Your task to perform on an android device: What's on the menu at Chipotle? Image 0: 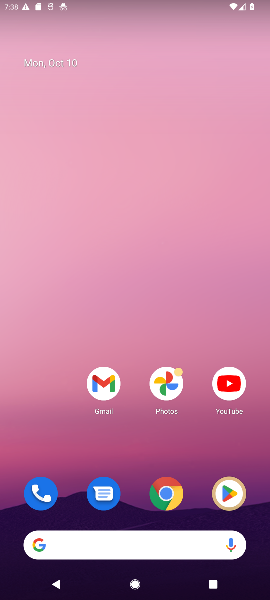
Step 0: drag from (139, 500) to (103, 129)
Your task to perform on an android device: What's on the menu at Chipotle? Image 1: 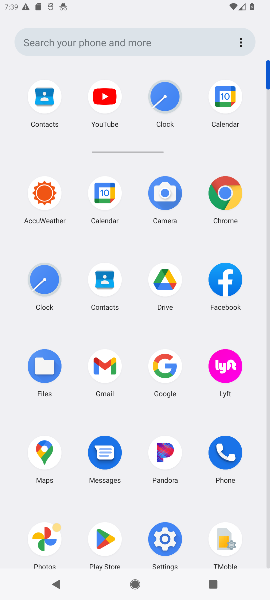
Step 1: click (163, 377)
Your task to perform on an android device: What's on the menu at Chipotle? Image 2: 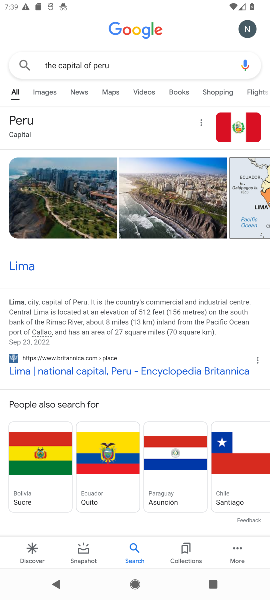
Step 2: click (127, 65)
Your task to perform on an android device: What's on the menu at Chipotle? Image 3: 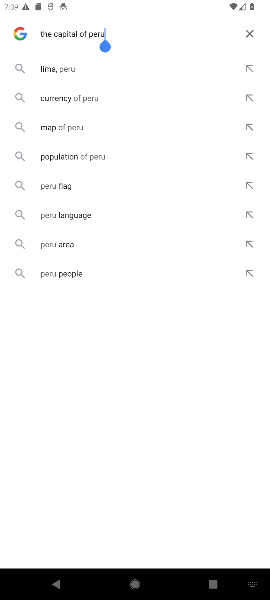
Step 3: click (249, 33)
Your task to perform on an android device: What's on the menu at Chipotle? Image 4: 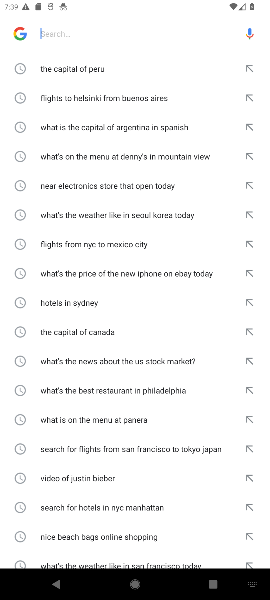
Step 4: type "What's on the menu at Chipotle?"
Your task to perform on an android device: What's on the menu at Chipotle? Image 5: 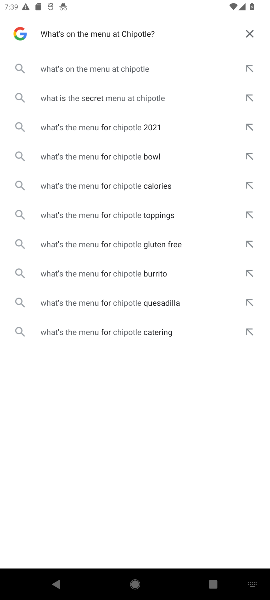
Step 5: click (98, 69)
Your task to perform on an android device: What's on the menu at Chipotle? Image 6: 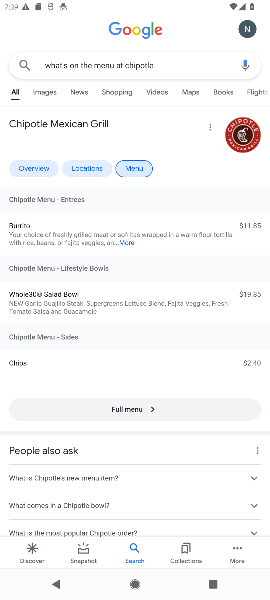
Step 6: task complete